Your task to perform on an android device: change the clock display to digital Image 0: 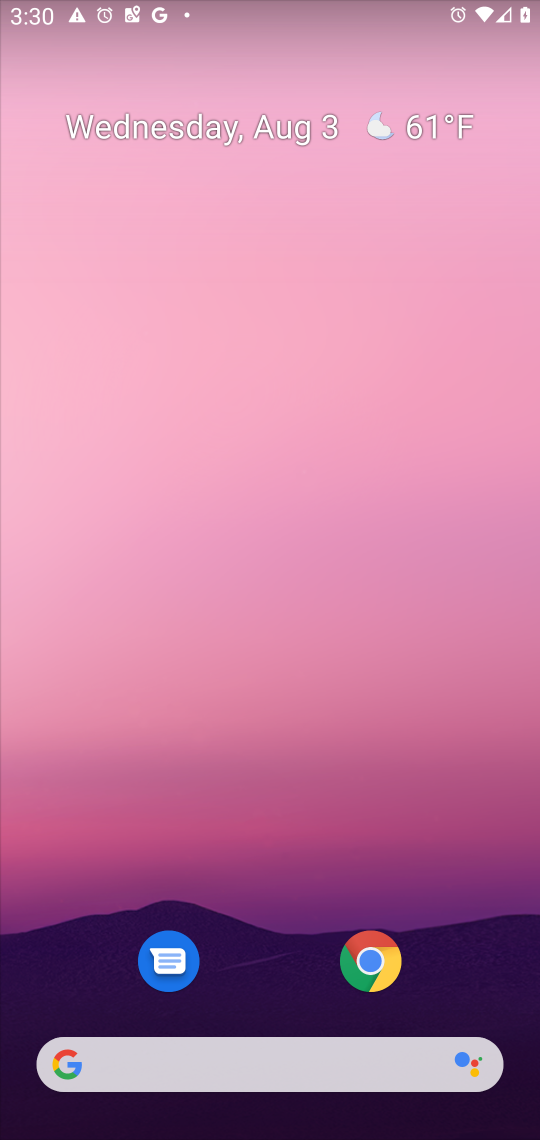
Step 0: drag from (271, 958) to (518, 196)
Your task to perform on an android device: change the clock display to digital Image 1: 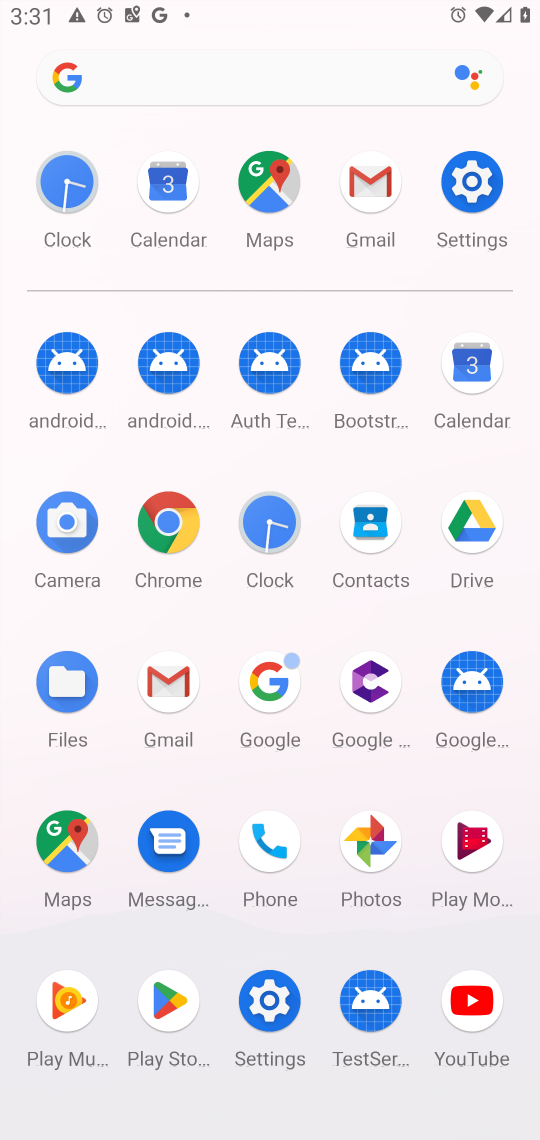
Step 1: click (263, 537)
Your task to perform on an android device: change the clock display to digital Image 2: 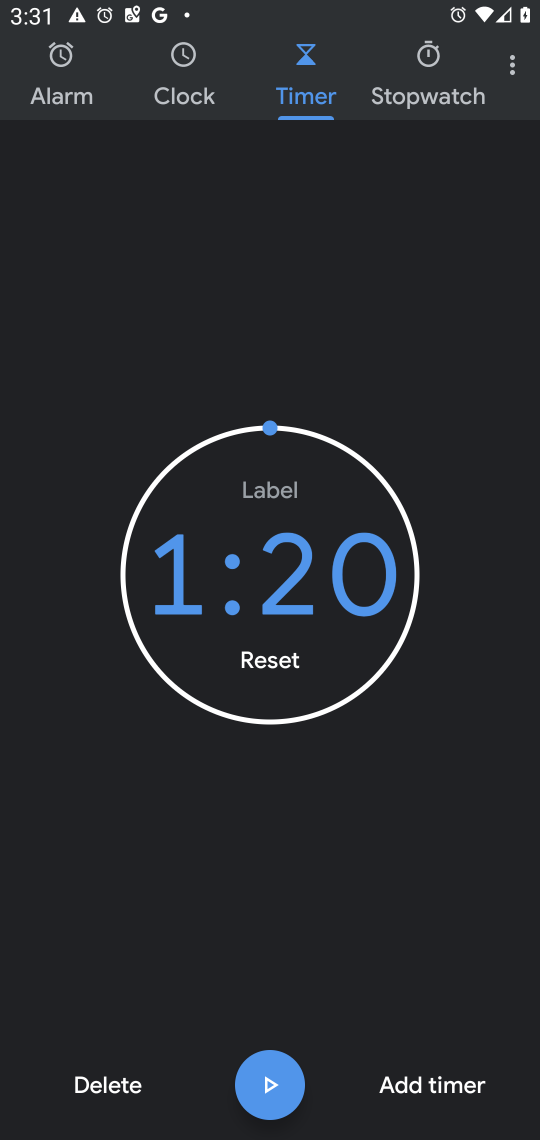
Step 2: click (517, 66)
Your task to perform on an android device: change the clock display to digital Image 3: 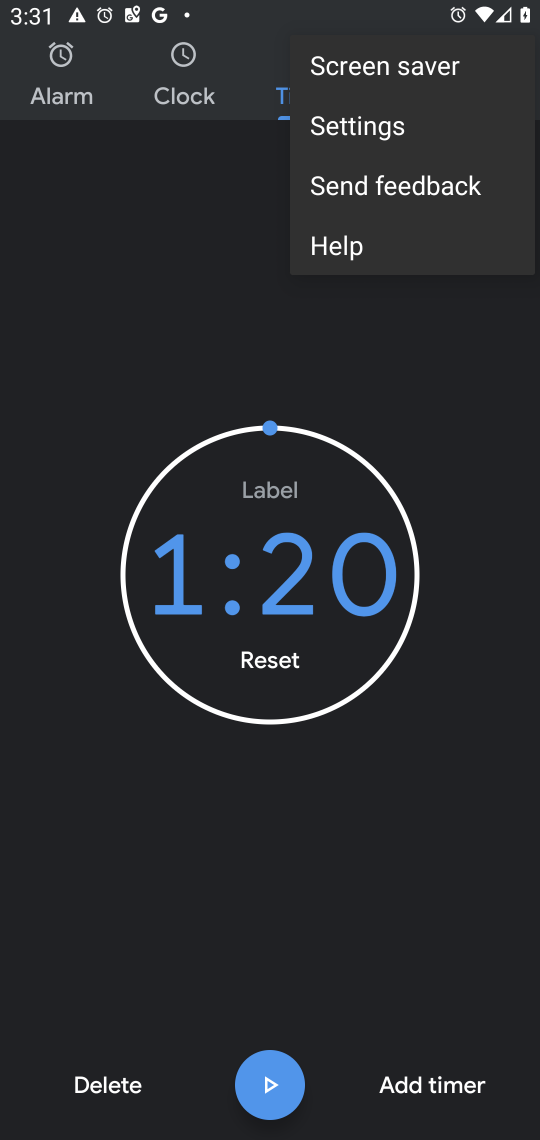
Step 3: click (405, 133)
Your task to perform on an android device: change the clock display to digital Image 4: 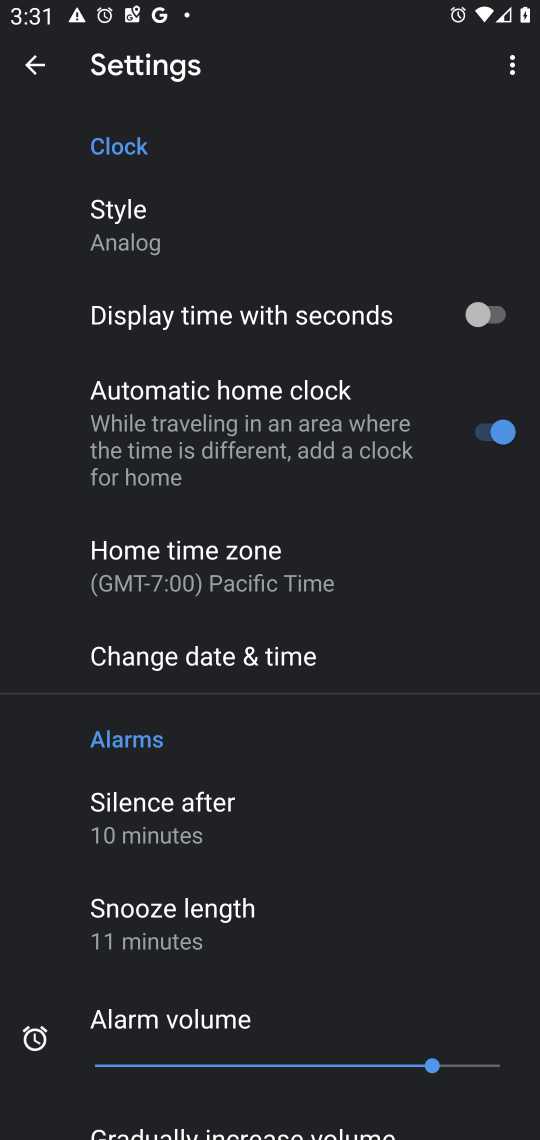
Step 4: click (132, 238)
Your task to perform on an android device: change the clock display to digital Image 5: 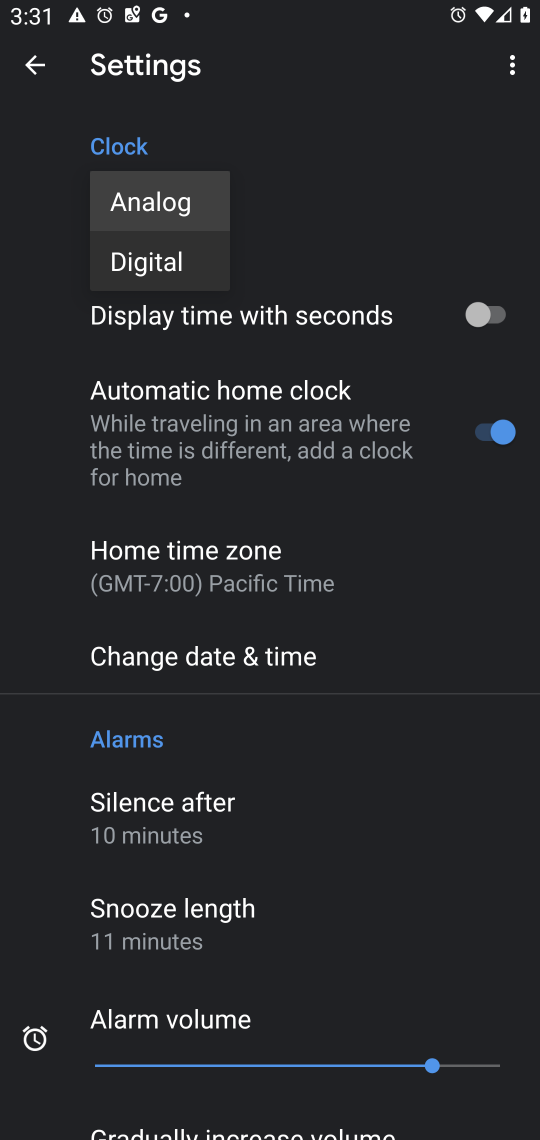
Step 5: click (176, 255)
Your task to perform on an android device: change the clock display to digital Image 6: 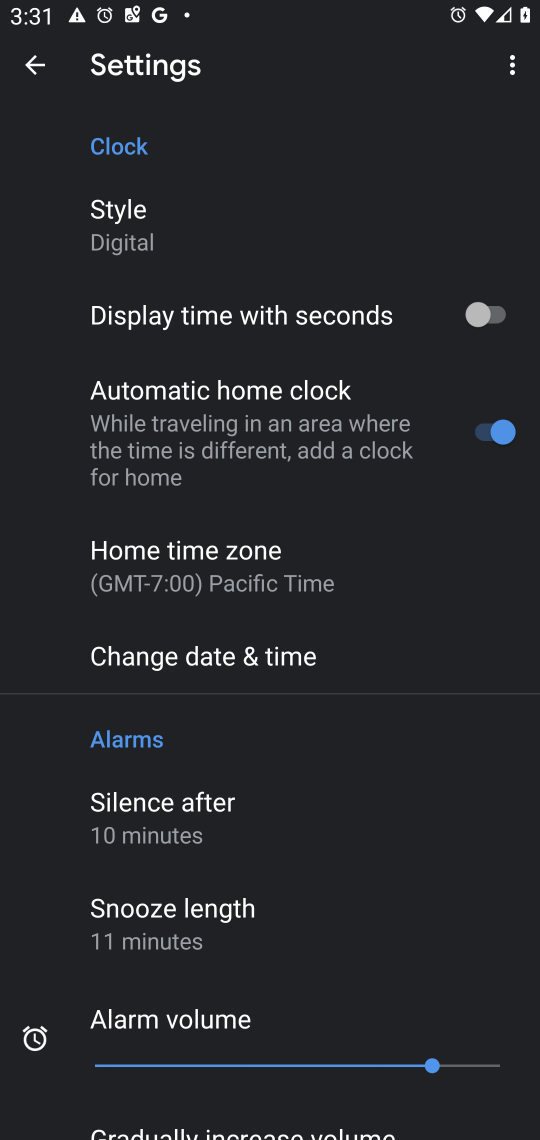
Step 6: task complete